Your task to perform on an android device: Open Google Chrome Image 0: 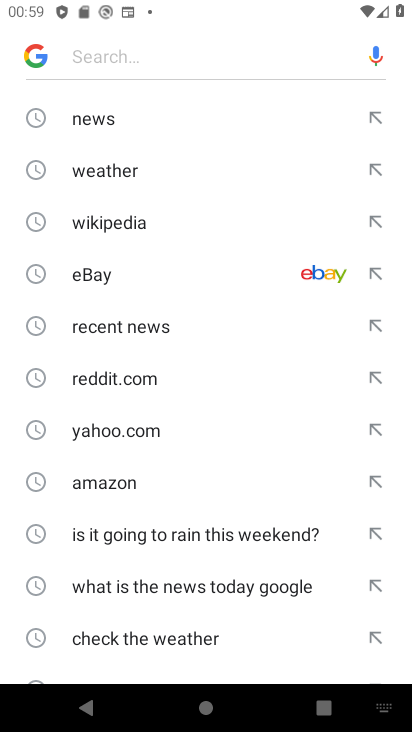
Step 0: press home button
Your task to perform on an android device: Open Google Chrome Image 1: 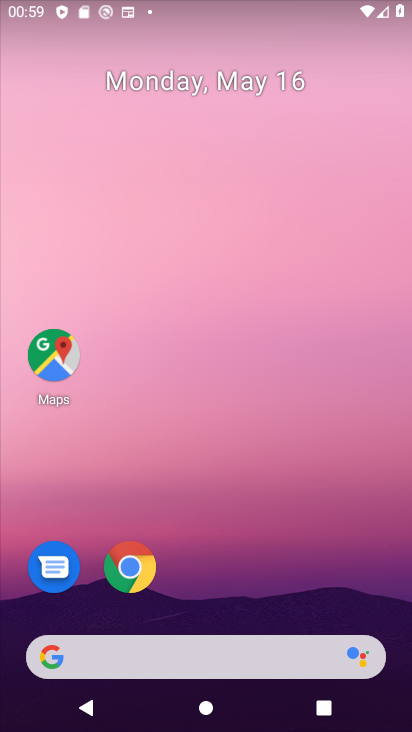
Step 1: click (144, 556)
Your task to perform on an android device: Open Google Chrome Image 2: 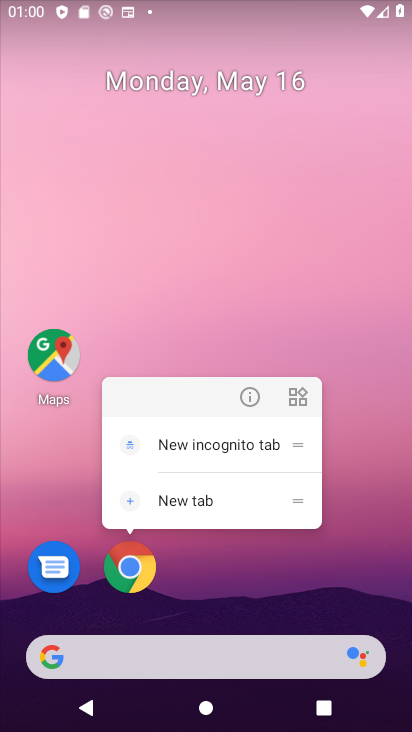
Step 2: click (141, 564)
Your task to perform on an android device: Open Google Chrome Image 3: 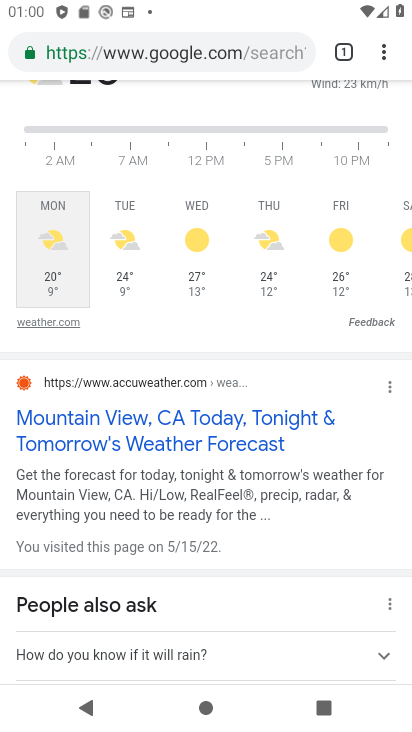
Step 3: task complete